Your task to perform on an android device: Go to notification settings Image 0: 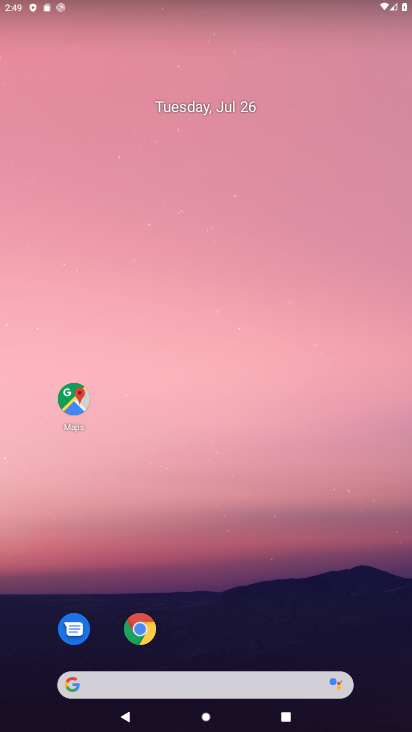
Step 0: drag from (234, 726) to (233, 193)
Your task to perform on an android device: Go to notification settings Image 1: 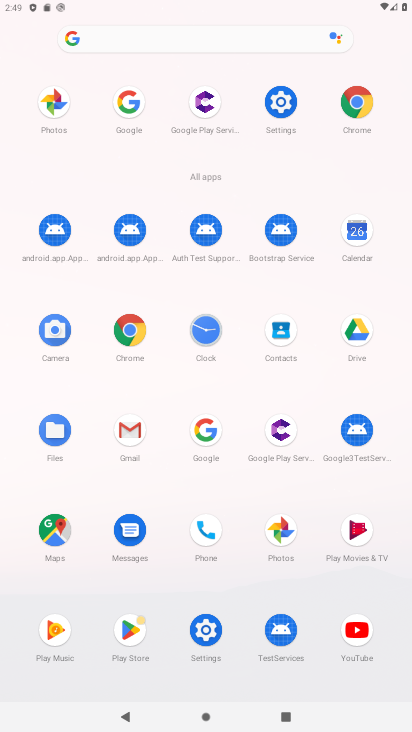
Step 1: click (280, 103)
Your task to perform on an android device: Go to notification settings Image 2: 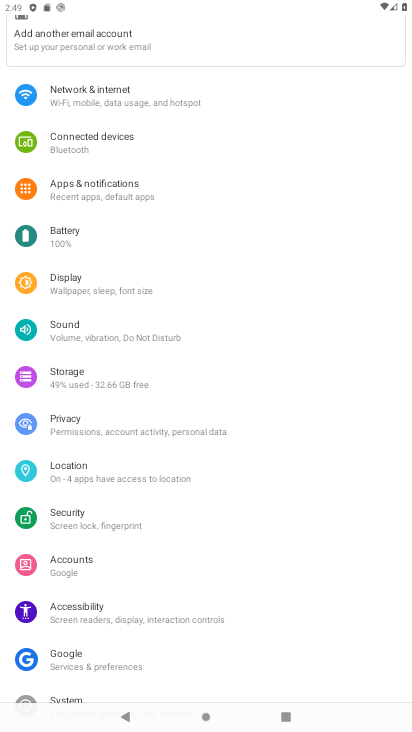
Step 2: click (110, 182)
Your task to perform on an android device: Go to notification settings Image 3: 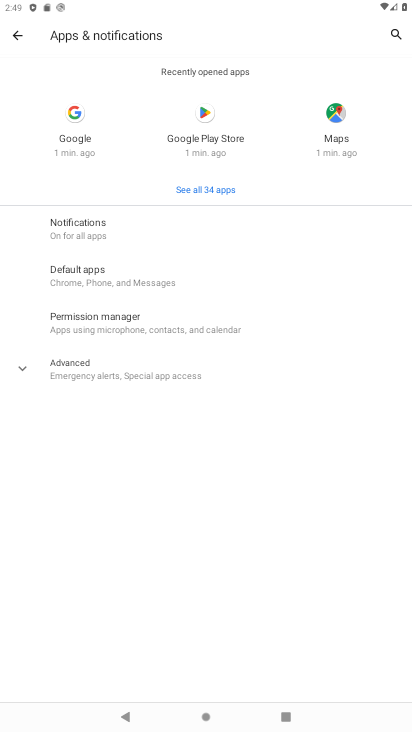
Step 3: click (87, 224)
Your task to perform on an android device: Go to notification settings Image 4: 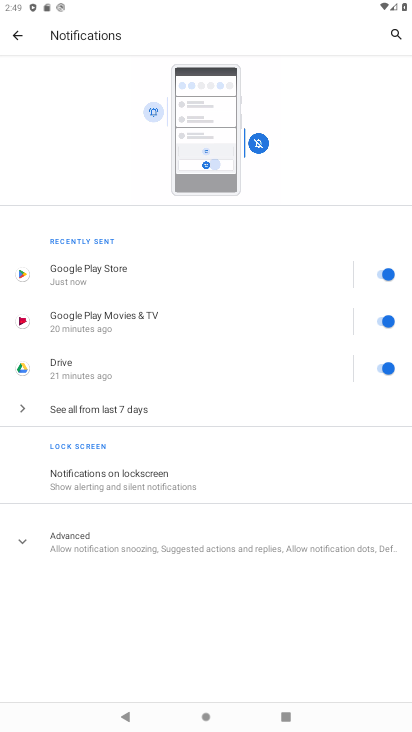
Step 4: task complete